Your task to perform on an android device: Open the Play Movies app and select the watchlist tab. Image 0: 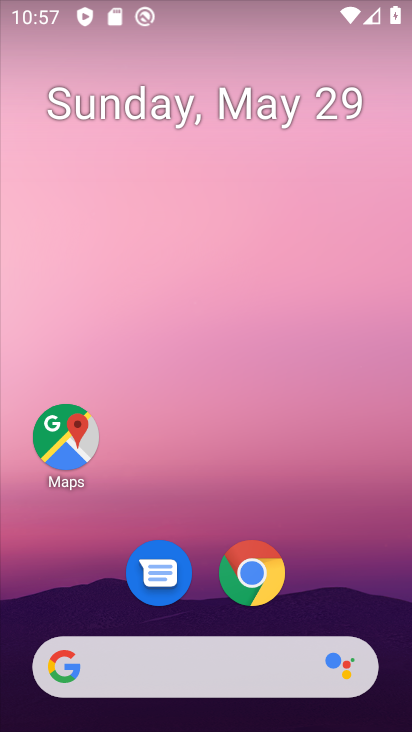
Step 0: drag from (308, 619) to (298, 85)
Your task to perform on an android device: Open the Play Movies app and select the watchlist tab. Image 1: 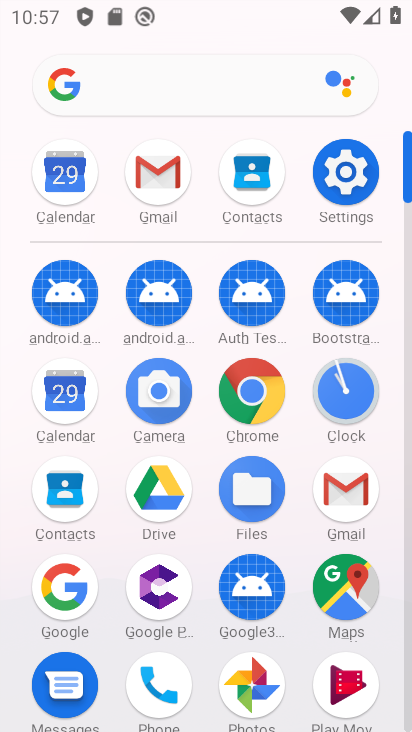
Step 1: click (341, 684)
Your task to perform on an android device: Open the Play Movies app and select the watchlist tab. Image 2: 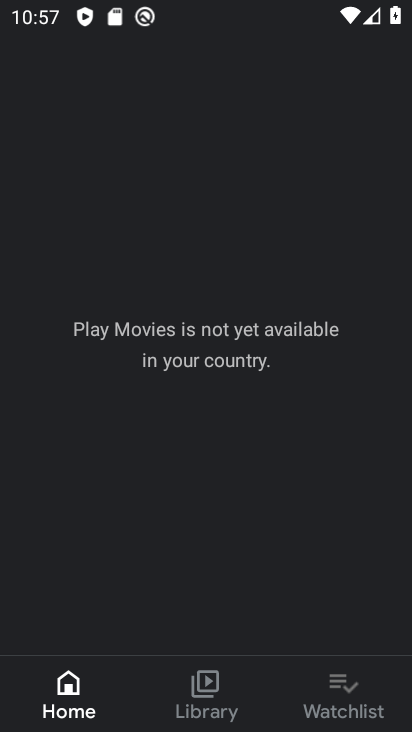
Step 2: click (342, 691)
Your task to perform on an android device: Open the Play Movies app and select the watchlist tab. Image 3: 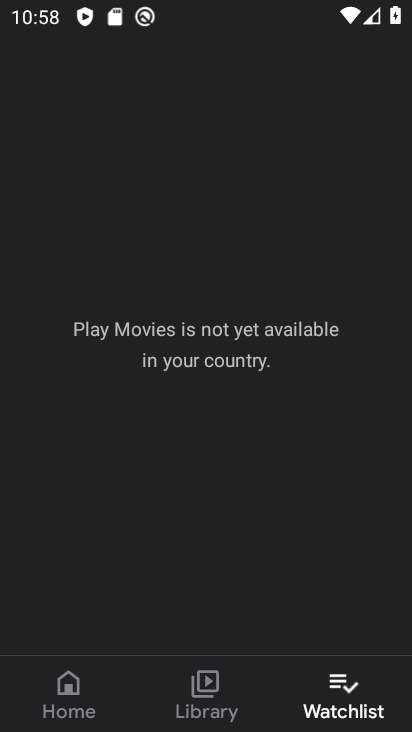
Step 3: task complete